Your task to perform on an android device: toggle sleep mode Image 0: 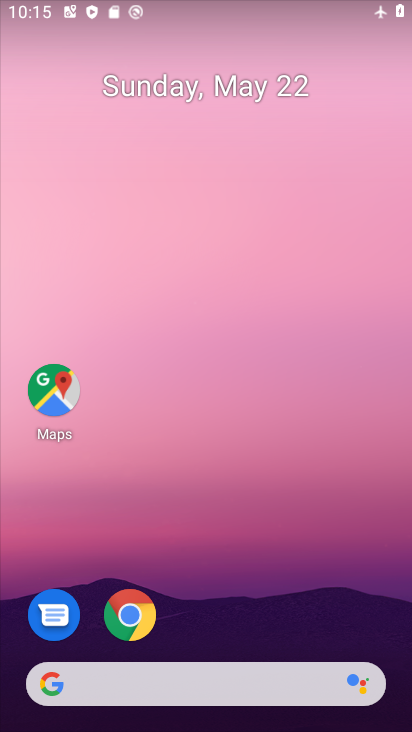
Step 0: drag from (258, 624) to (188, 165)
Your task to perform on an android device: toggle sleep mode Image 1: 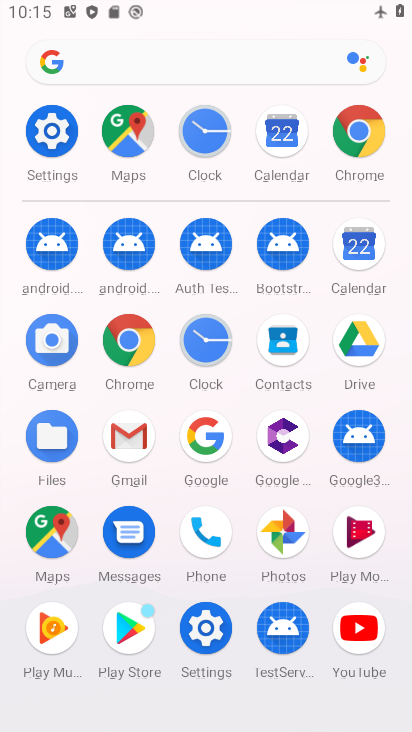
Step 1: click (48, 140)
Your task to perform on an android device: toggle sleep mode Image 2: 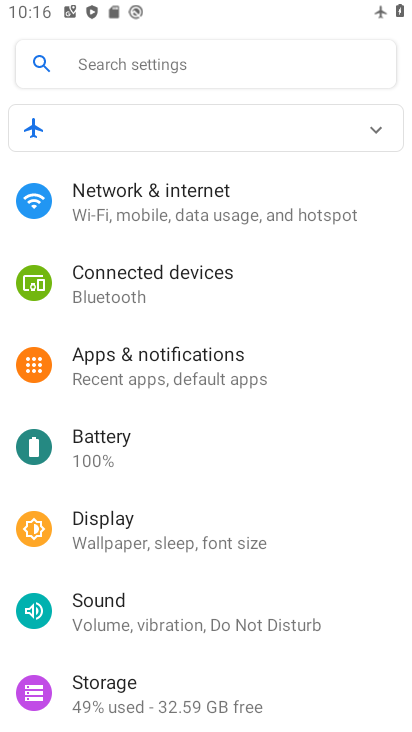
Step 2: drag from (206, 561) to (238, 181)
Your task to perform on an android device: toggle sleep mode Image 3: 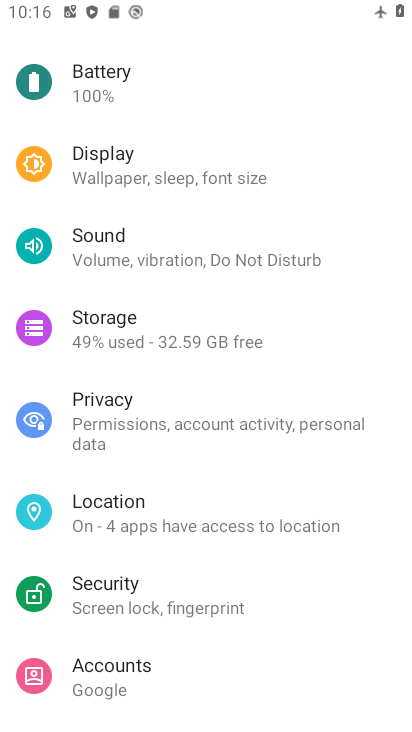
Step 3: drag from (246, 511) to (237, 583)
Your task to perform on an android device: toggle sleep mode Image 4: 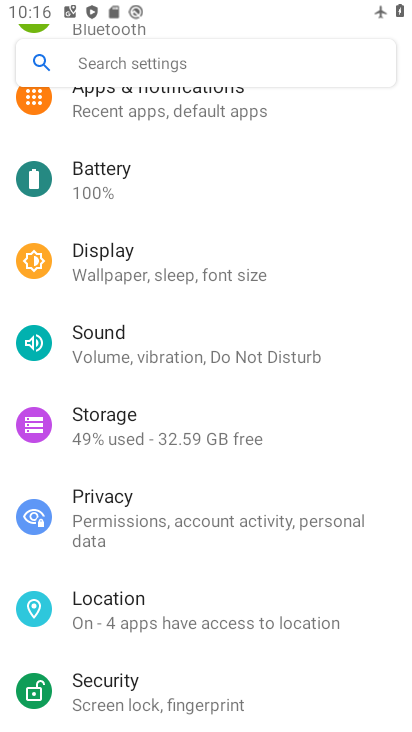
Step 4: click (145, 264)
Your task to perform on an android device: toggle sleep mode Image 5: 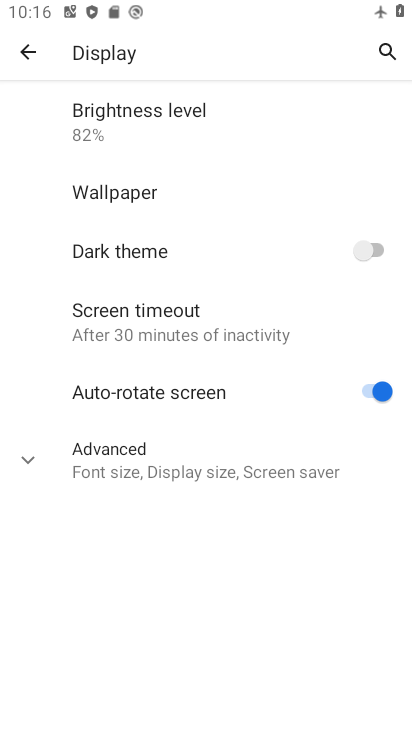
Step 5: click (208, 329)
Your task to perform on an android device: toggle sleep mode Image 6: 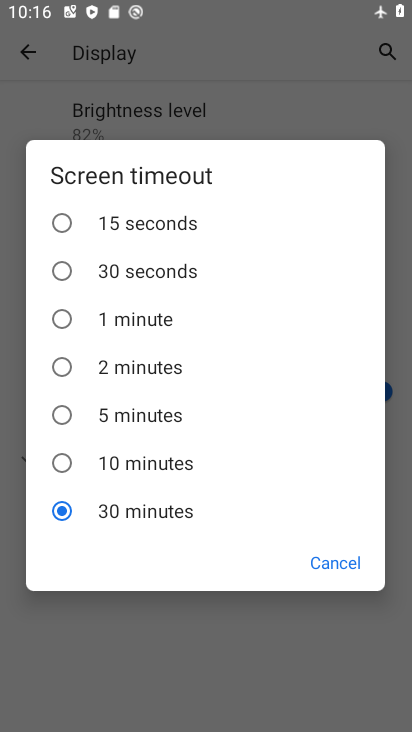
Step 6: click (143, 460)
Your task to perform on an android device: toggle sleep mode Image 7: 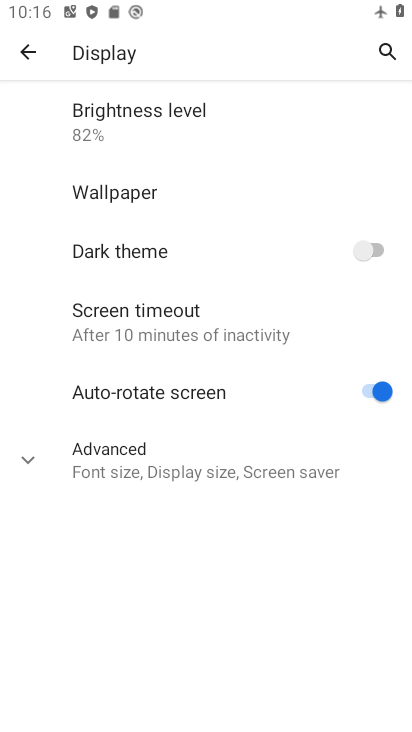
Step 7: task complete